Your task to perform on an android device: set the timer Image 0: 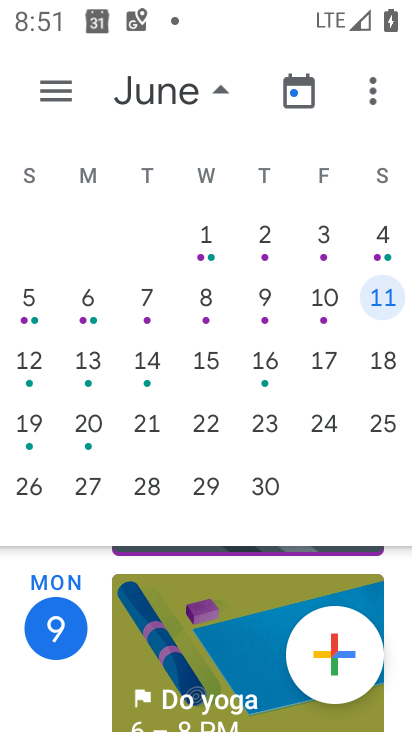
Step 0: press home button
Your task to perform on an android device: set the timer Image 1: 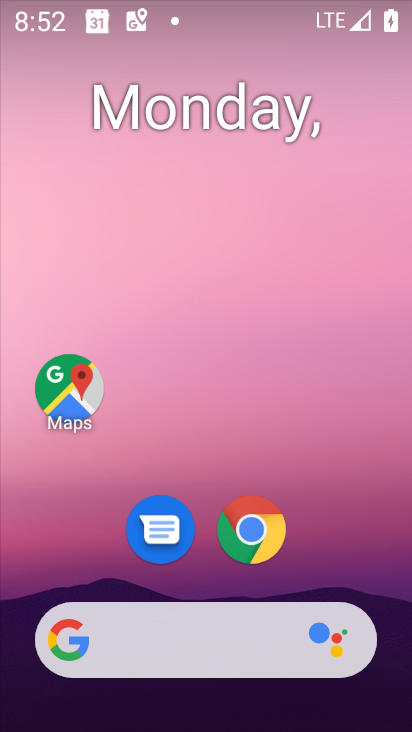
Step 1: drag from (25, 653) to (261, 214)
Your task to perform on an android device: set the timer Image 2: 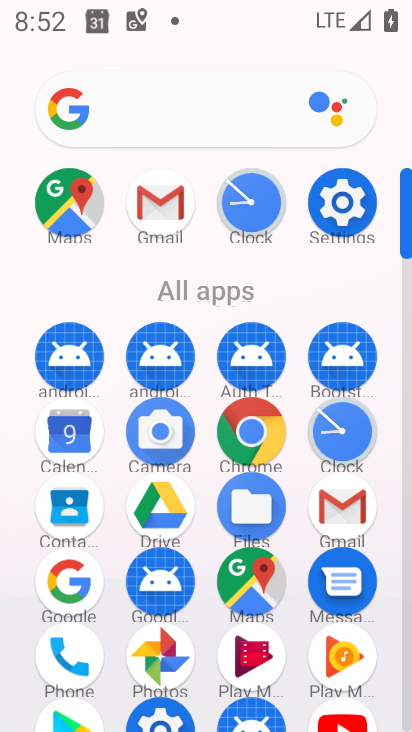
Step 2: click (353, 449)
Your task to perform on an android device: set the timer Image 3: 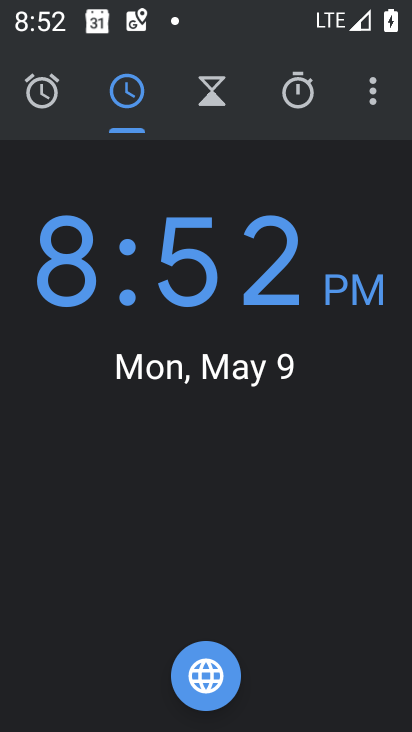
Step 3: click (209, 98)
Your task to perform on an android device: set the timer Image 4: 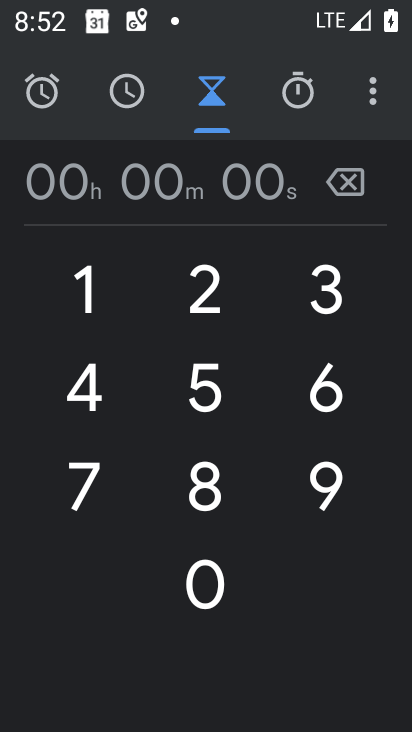
Step 4: click (203, 595)
Your task to perform on an android device: set the timer Image 5: 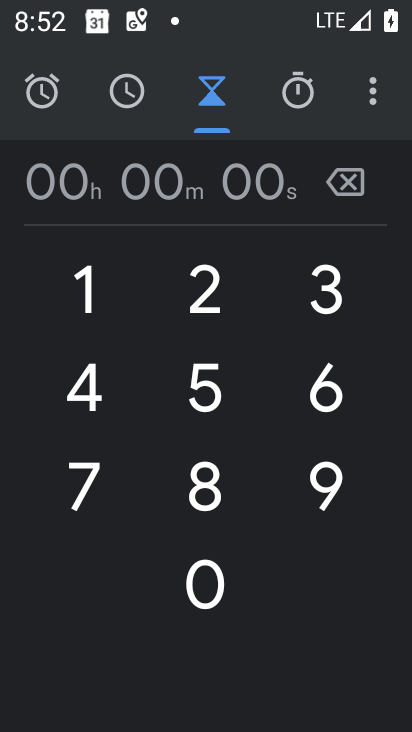
Step 5: click (97, 280)
Your task to perform on an android device: set the timer Image 6: 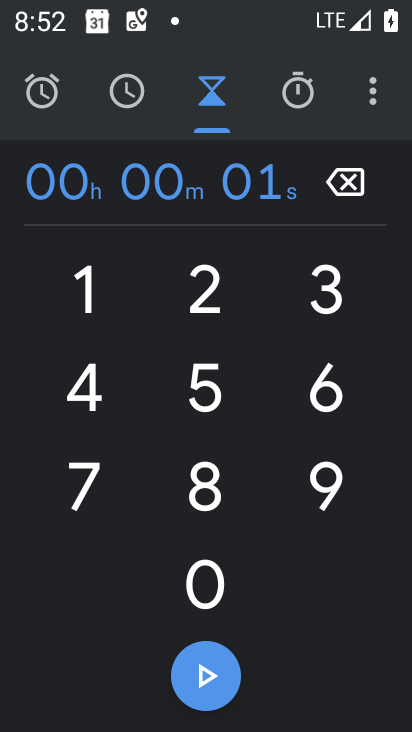
Step 6: click (202, 598)
Your task to perform on an android device: set the timer Image 7: 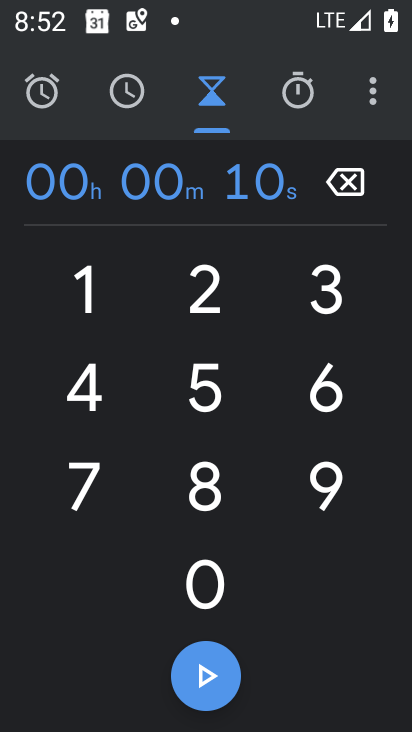
Step 7: click (202, 598)
Your task to perform on an android device: set the timer Image 8: 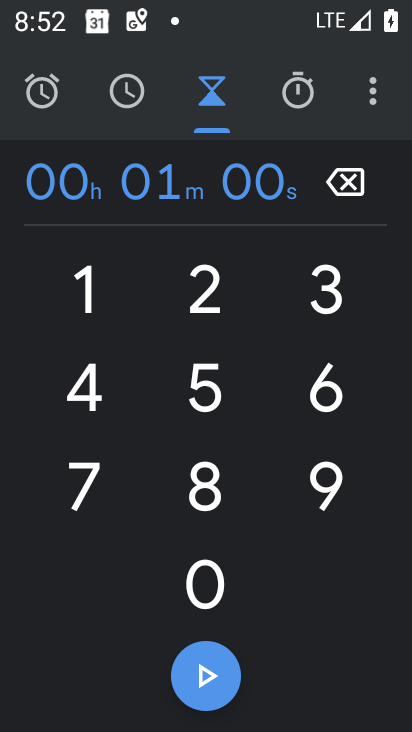
Step 8: click (202, 597)
Your task to perform on an android device: set the timer Image 9: 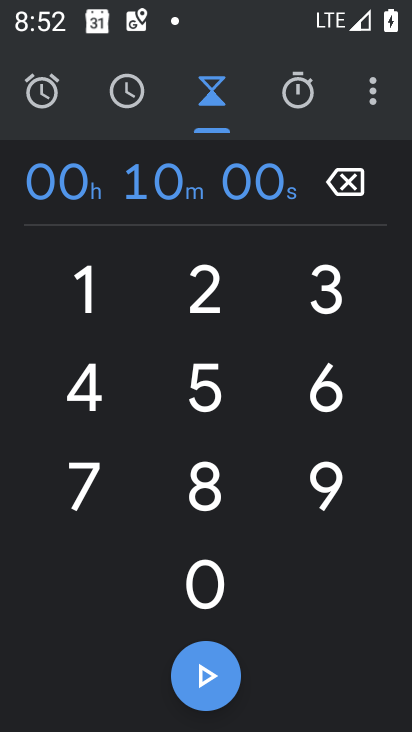
Step 9: click (204, 681)
Your task to perform on an android device: set the timer Image 10: 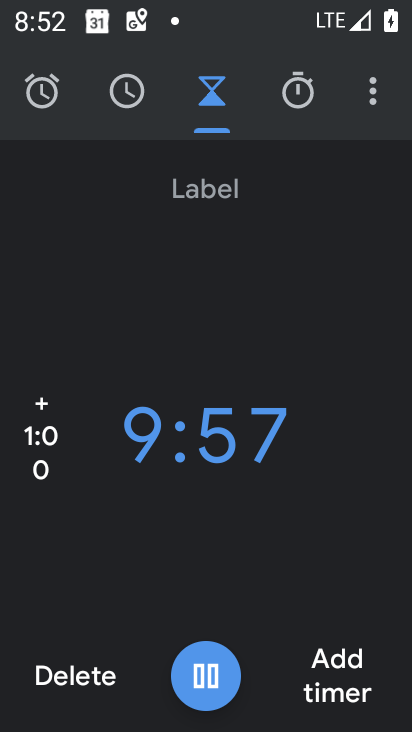
Step 10: task complete